Your task to perform on an android device: Go to network settings Image 0: 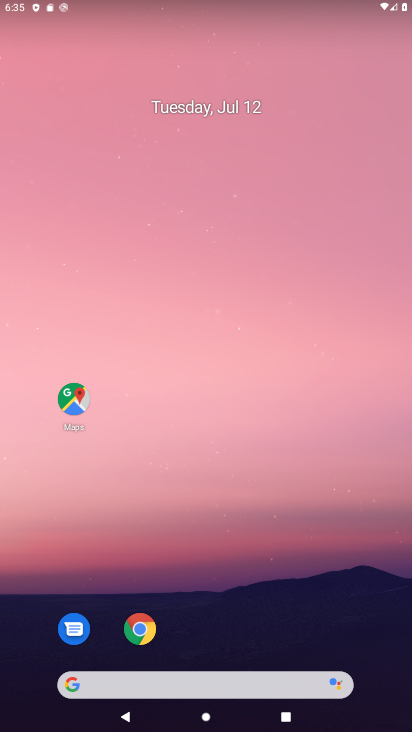
Step 0: drag from (241, 550) to (156, 44)
Your task to perform on an android device: Go to network settings Image 1: 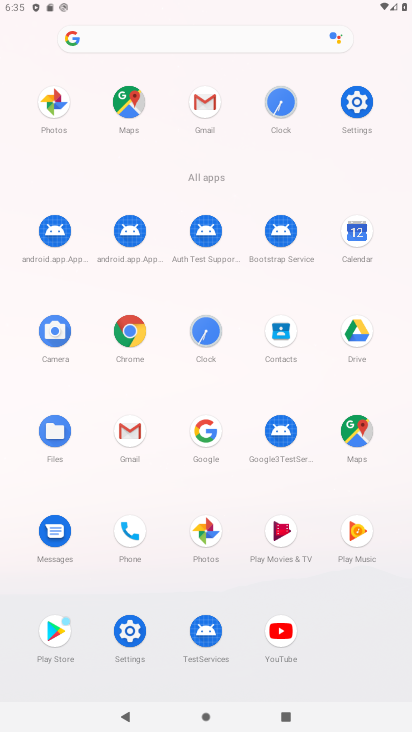
Step 1: click (356, 102)
Your task to perform on an android device: Go to network settings Image 2: 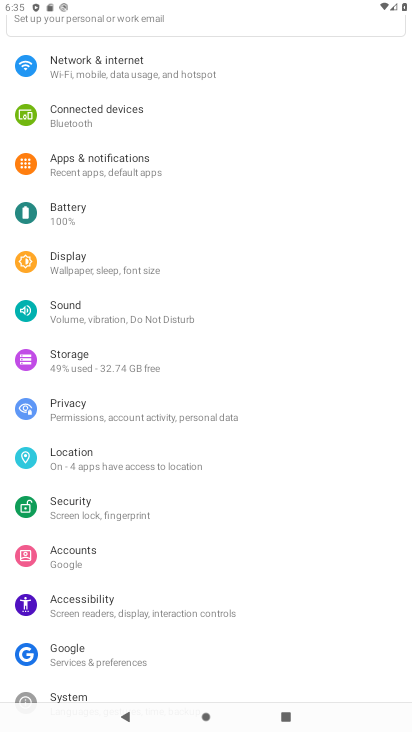
Step 2: click (79, 59)
Your task to perform on an android device: Go to network settings Image 3: 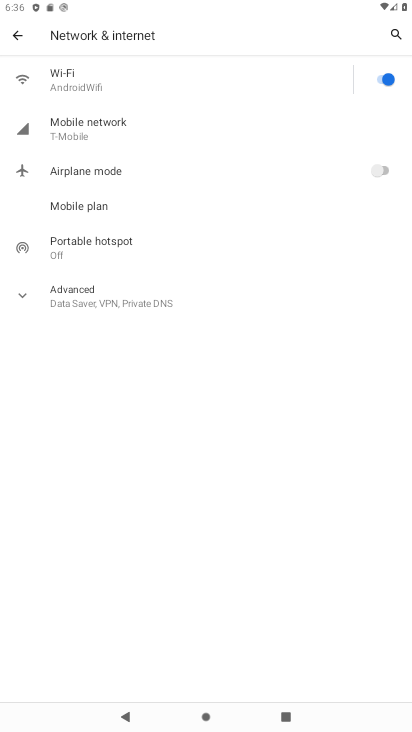
Step 3: task complete